Your task to perform on an android device: open the mobile data screen to see how much data has been used Image 0: 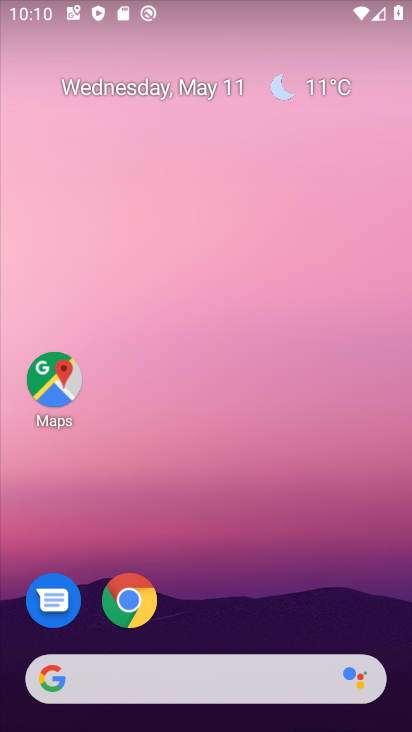
Step 0: drag from (272, 591) to (305, 122)
Your task to perform on an android device: open the mobile data screen to see how much data has been used Image 1: 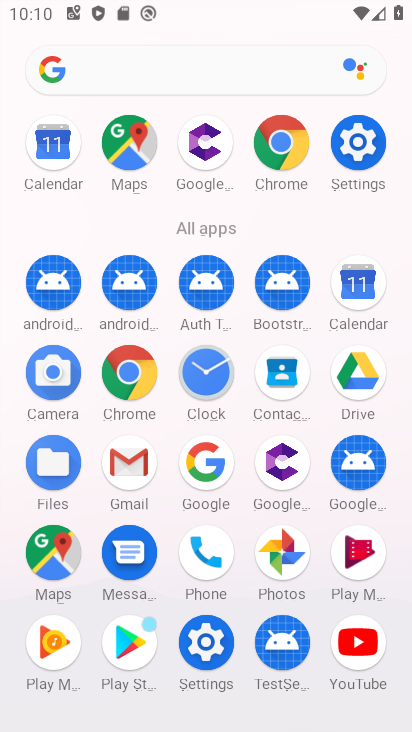
Step 1: click (358, 142)
Your task to perform on an android device: open the mobile data screen to see how much data has been used Image 2: 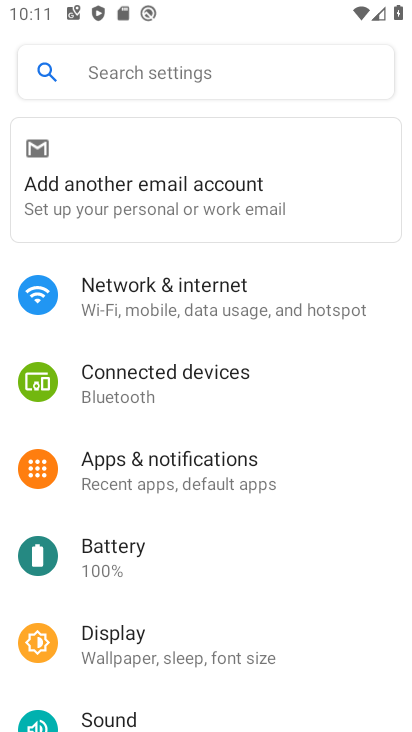
Step 2: click (161, 300)
Your task to perform on an android device: open the mobile data screen to see how much data has been used Image 3: 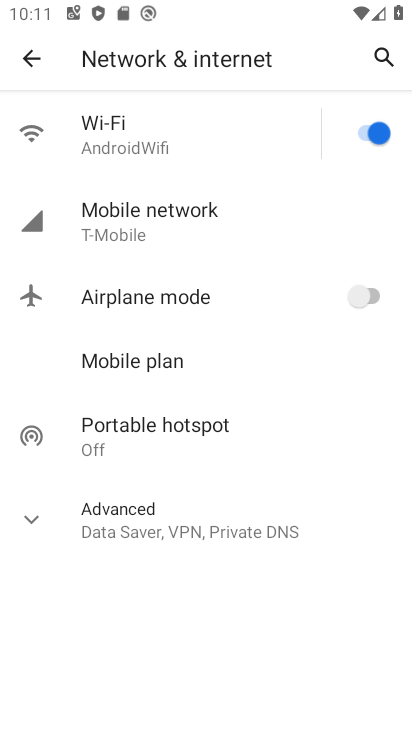
Step 3: click (132, 226)
Your task to perform on an android device: open the mobile data screen to see how much data has been used Image 4: 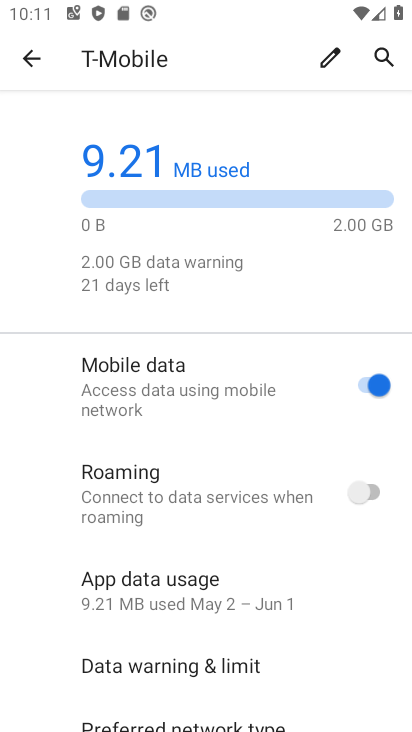
Step 4: click (192, 587)
Your task to perform on an android device: open the mobile data screen to see how much data has been used Image 5: 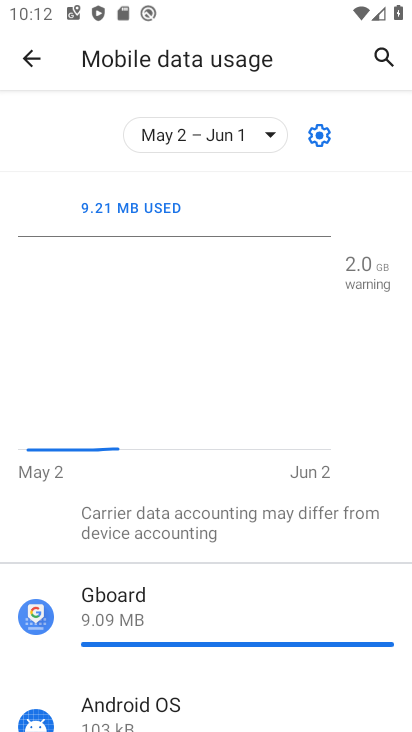
Step 5: task complete